Your task to perform on an android device: Go to location settings Image 0: 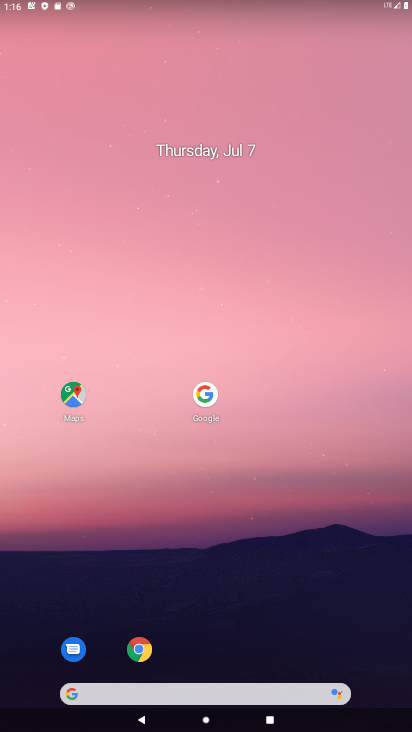
Step 0: press home button
Your task to perform on an android device: Go to location settings Image 1: 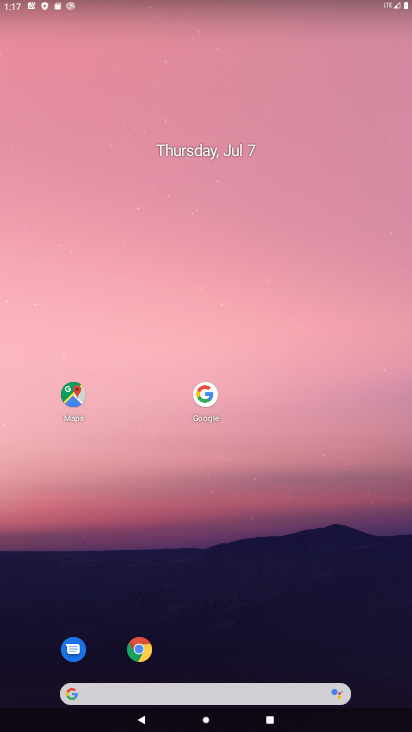
Step 1: drag from (314, 558) to (355, 86)
Your task to perform on an android device: Go to location settings Image 2: 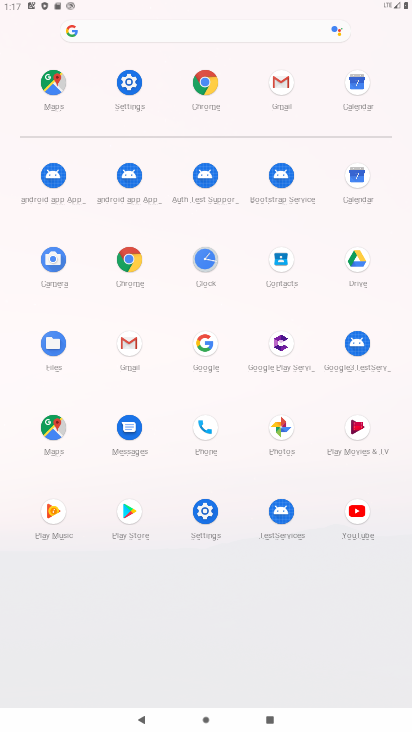
Step 2: click (131, 87)
Your task to perform on an android device: Go to location settings Image 3: 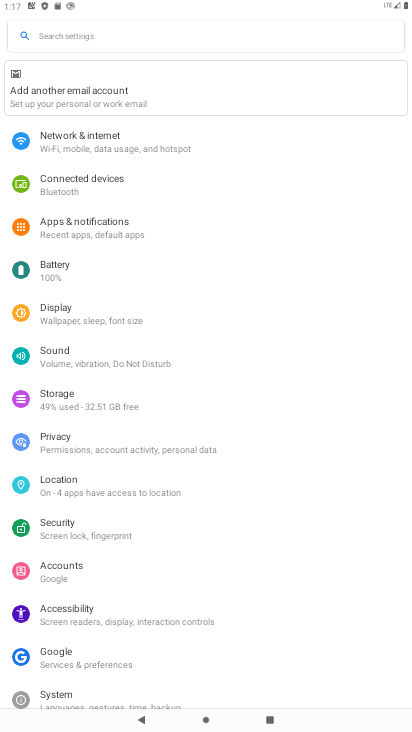
Step 3: click (120, 486)
Your task to perform on an android device: Go to location settings Image 4: 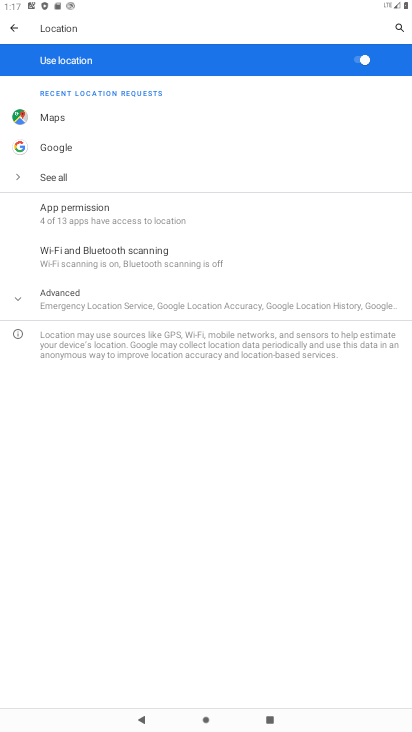
Step 4: task complete